Your task to perform on an android device: Go to Amazon Image 0: 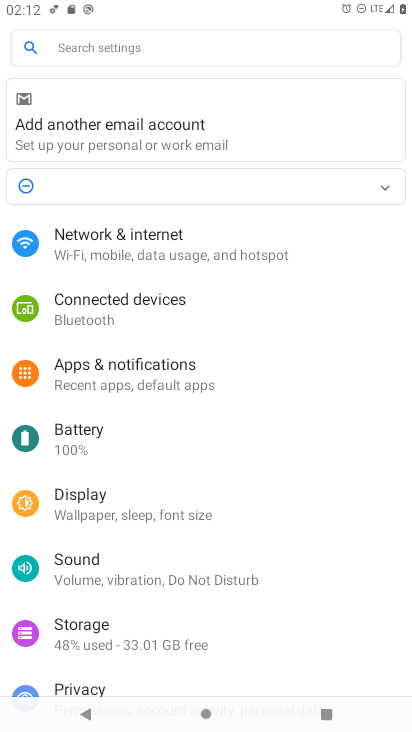
Step 0: press home button
Your task to perform on an android device: Go to Amazon Image 1: 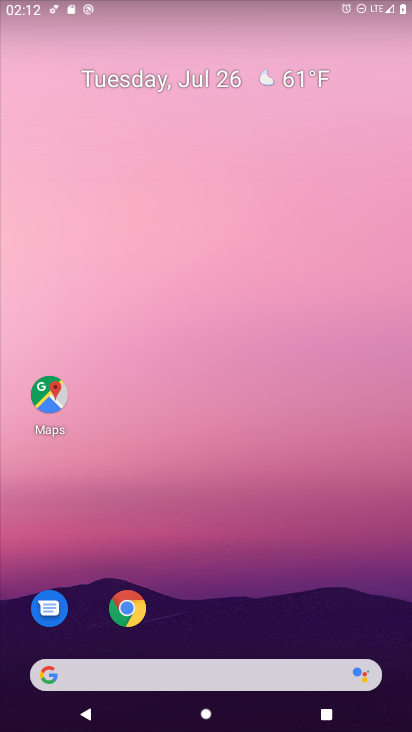
Step 1: click (125, 601)
Your task to perform on an android device: Go to Amazon Image 2: 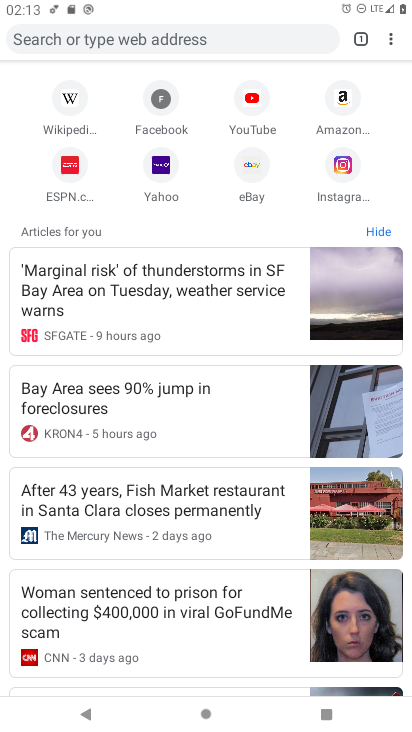
Step 2: click (339, 100)
Your task to perform on an android device: Go to Amazon Image 3: 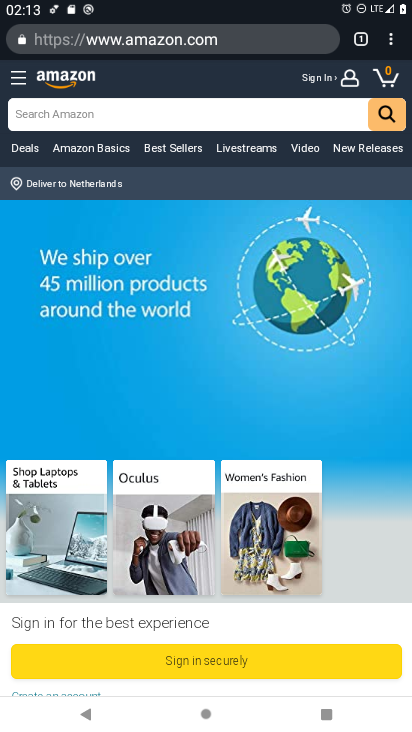
Step 3: task complete